Your task to perform on an android device: open sync settings in chrome Image 0: 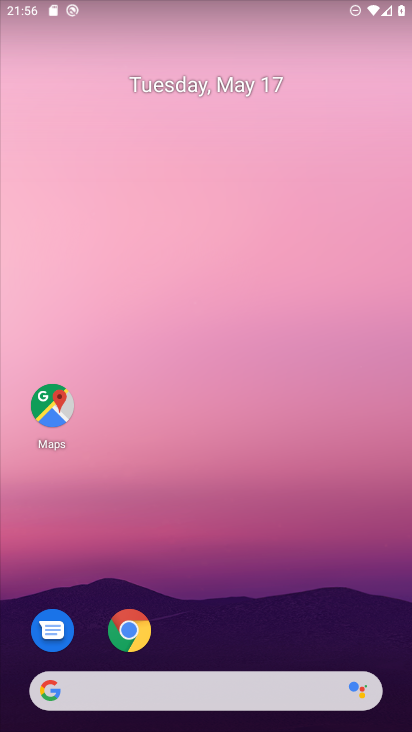
Step 0: drag from (368, 548) to (370, 275)
Your task to perform on an android device: open sync settings in chrome Image 1: 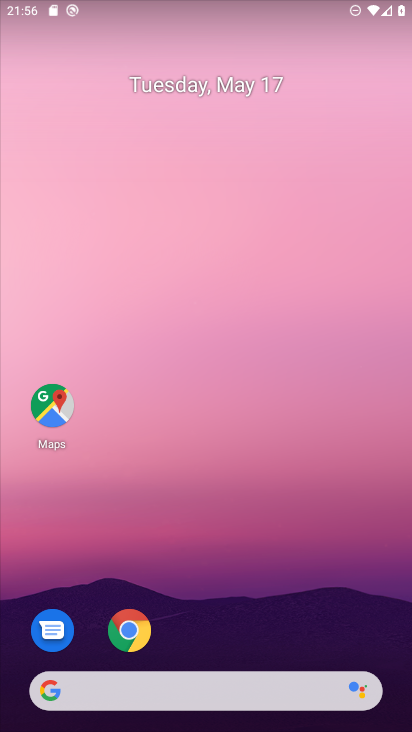
Step 1: drag from (349, 594) to (355, 176)
Your task to perform on an android device: open sync settings in chrome Image 2: 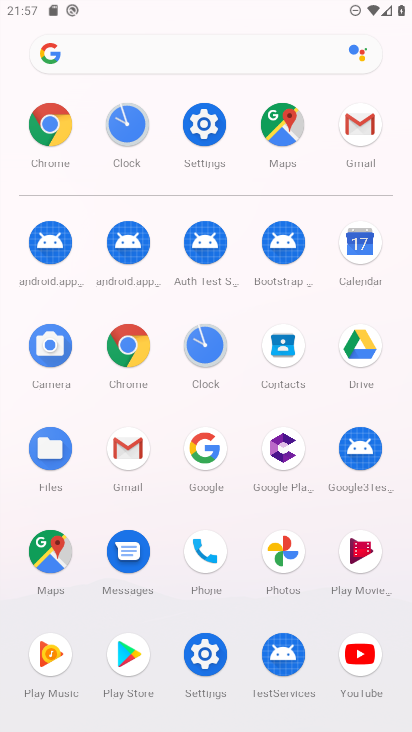
Step 2: click (137, 361)
Your task to perform on an android device: open sync settings in chrome Image 3: 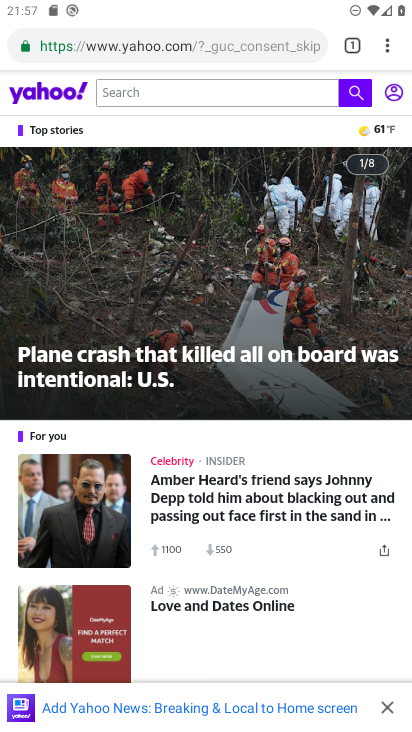
Step 3: click (391, 50)
Your task to perform on an android device: open sync settings in chrome Image 4: 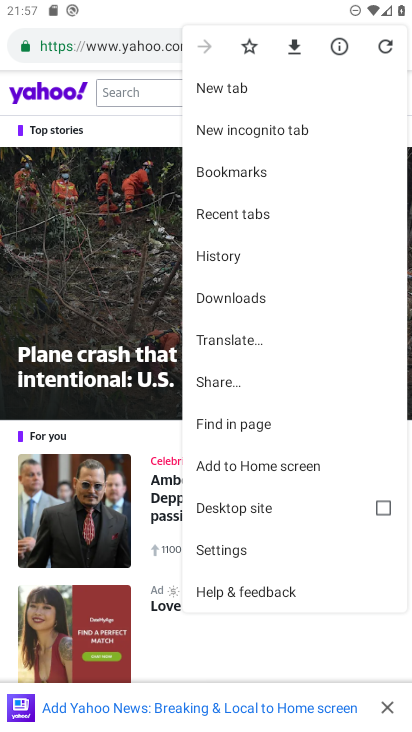
Step 4: click (243, 547)
Your task to perform on an android device: open sync settings in chrome Image 5: 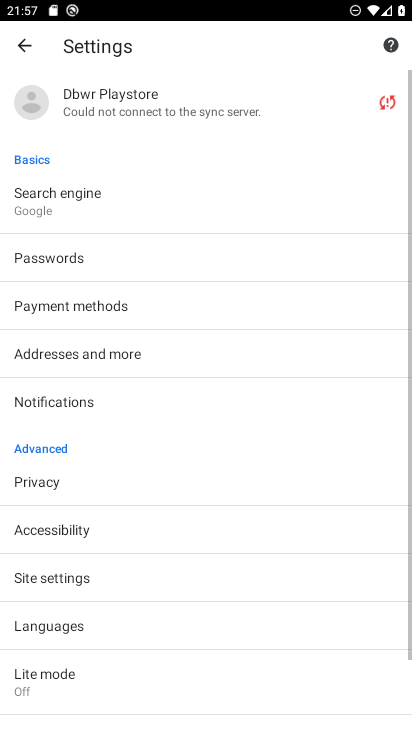
Step 5: drag from (289, 586) to (289, 509)
Your task to perform on an android device: open sync settings in chrome Image 6: 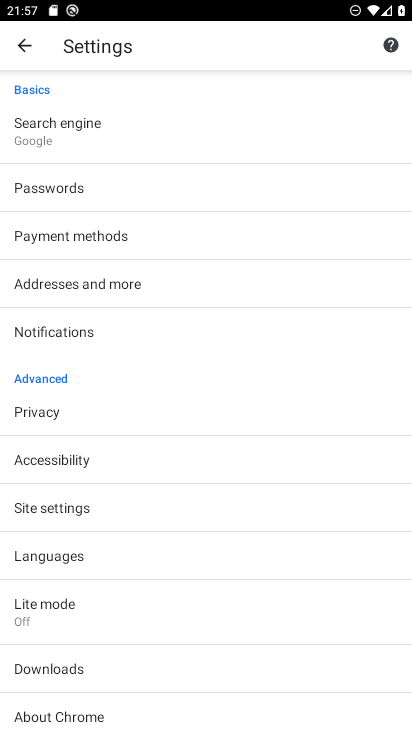
Step 6: drag from (282, 625) to (284, 517)
Your task to perform on an android device: open sync settings in chrome Image 7: 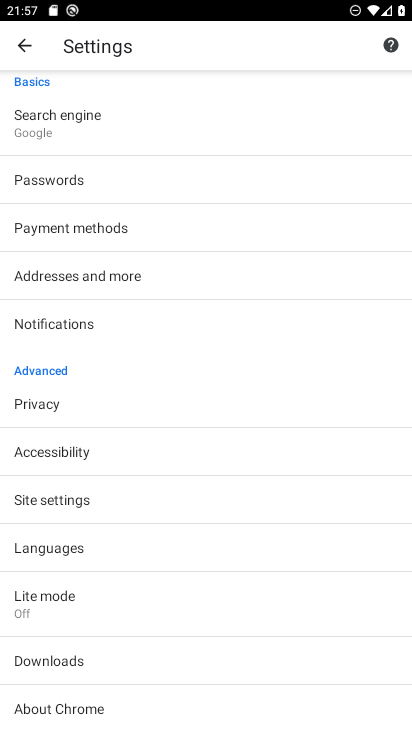
Step 7: drag from (256, 649) to (262, 484)
Your task to perform on an android device: open sync settings in chrome Image 8: 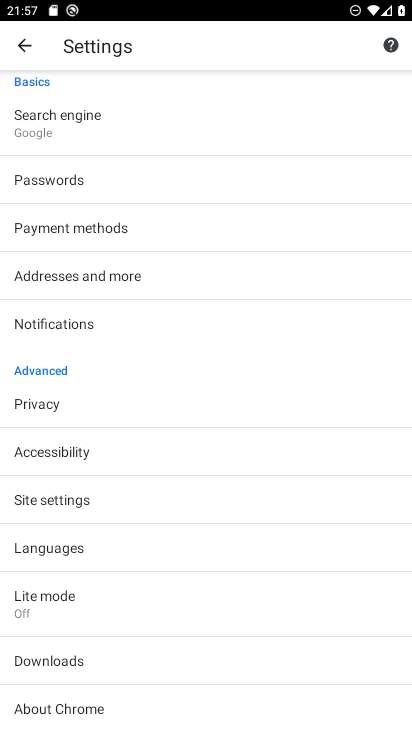
Step 8: click (250, 496)
Your task to perform on an android device: open sync settings in chrome Image 9: 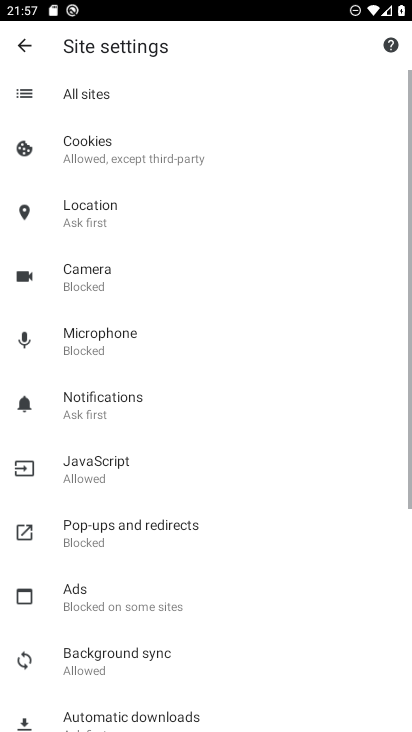
Step 9: drag from (267, 633) to (267, 544)
Your task to perform on an android device: open sync settings in chrome Image 10: 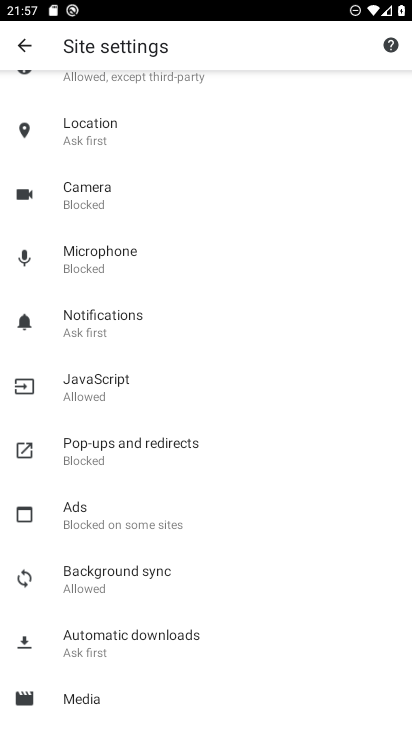
Step 10: drag from (270, 640) to (282, 570)
Your task to perform on an android device: open sync settings in chrome Image 11: 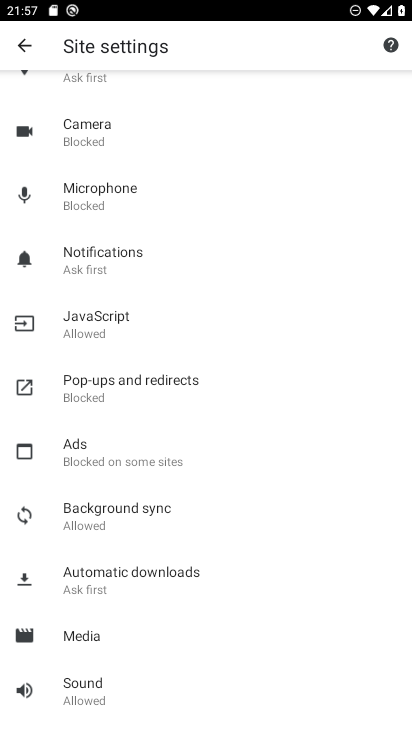
Step 11: drag from (274, 625) to (277, 558)
Your task to perform on an android device: open sync settings in chrome Image 12: 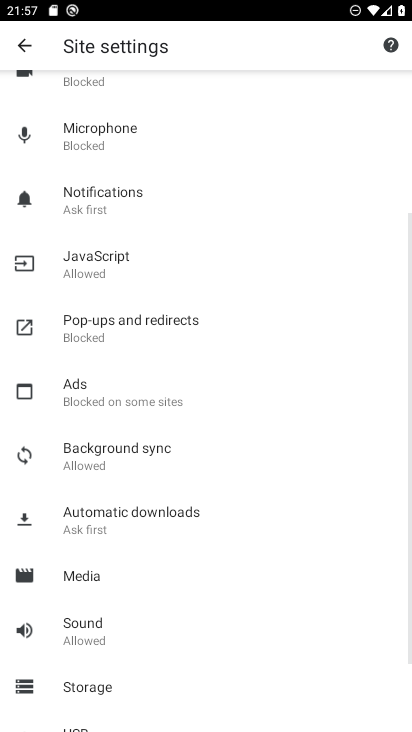
Step 12: drag from (266, 623) to (274, 537)
Your task to perform on an android device: open sync settings in chrome Image 13: 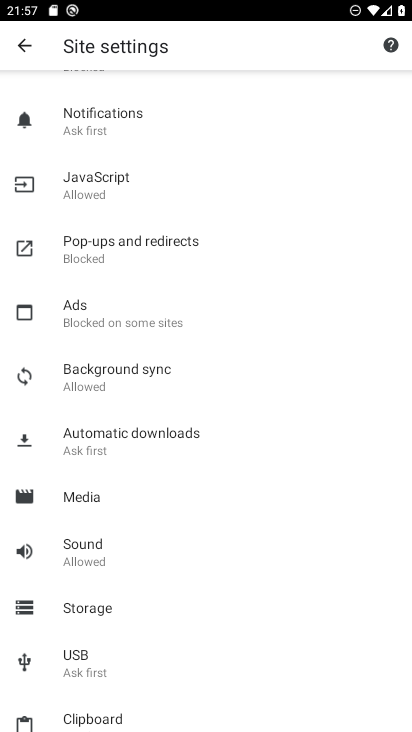
Step 13: drag from (268, 618) to (266, 559)
Your task to perform on an android device: open sync settings in chrome Image 14: 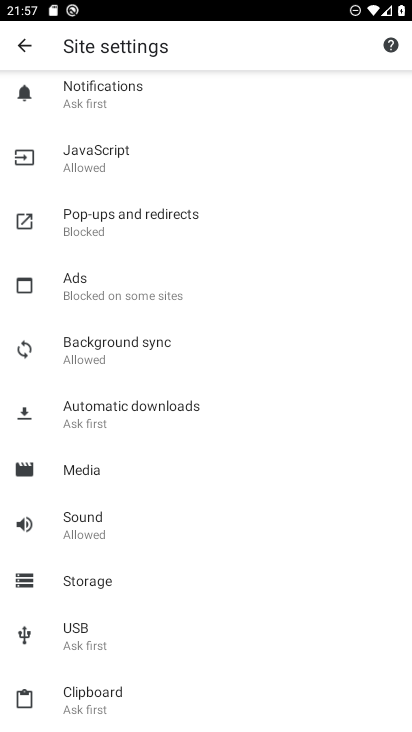
Step 14: drag from (264, 606) to (266, 512)
Your task to perform on an android device: open sync settings in chrome Image 15: 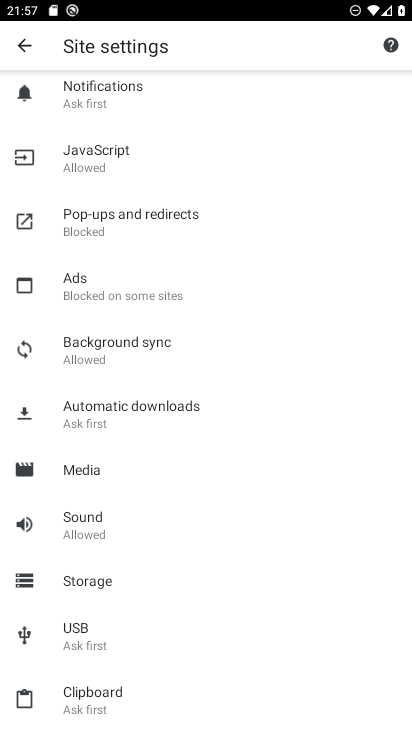
Step 15: drag from (272, 348) to (277, 440)
Your task to perform on an android device: open sync settings in chrome Image 16: 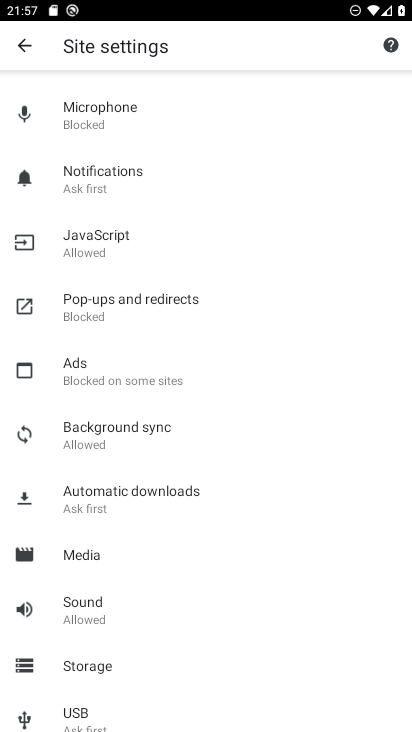
Step 16: click (182, 430)
Your task to perform on an android device: open sync settings in chrome Image 17: 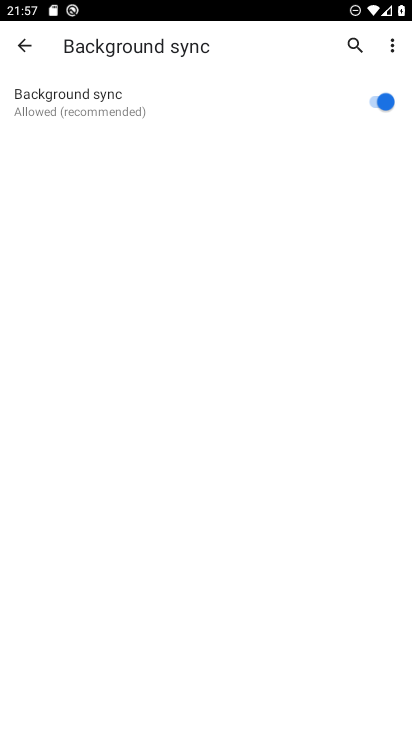
Step 17: task complete